Your task to perform on an android device: Open display settings Image 0: 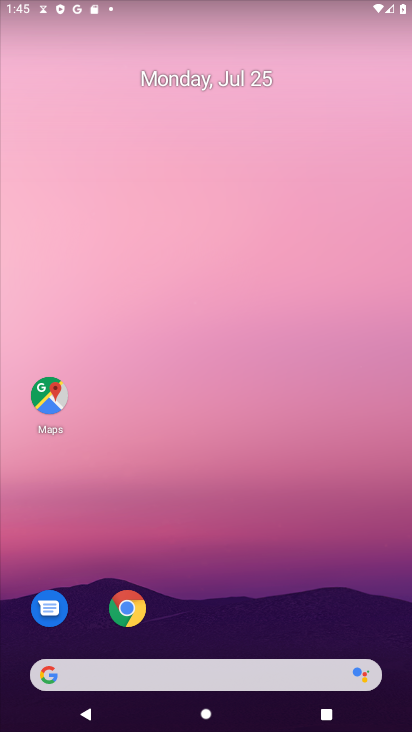
Step 0: press home button
Your task to perform on an android device: Open display settings Image 1: 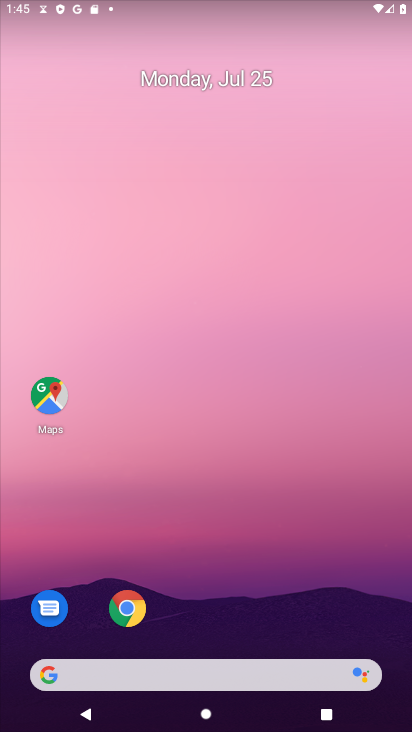
Step 1: drag from (188, 673) to (294, 44)
Your task to perform on an android device: Open display settings Image 2: 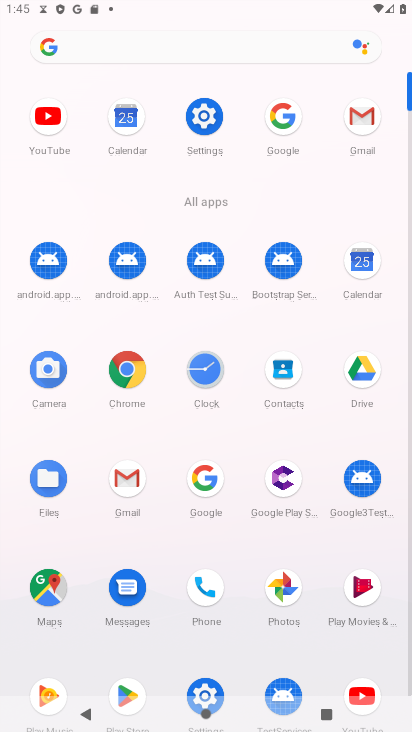
Step 2: click (204, 115)
Your task to perform on an android device: Open display settings Image 3: 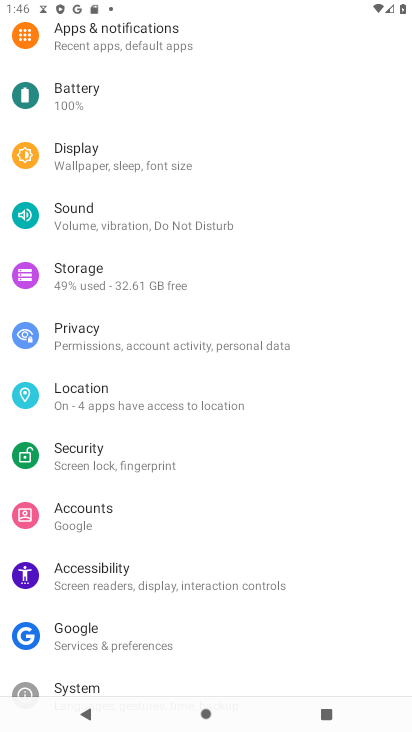
Step 3: click (95, 162)
Your task to perform on an android device: Open display settings Image 4: 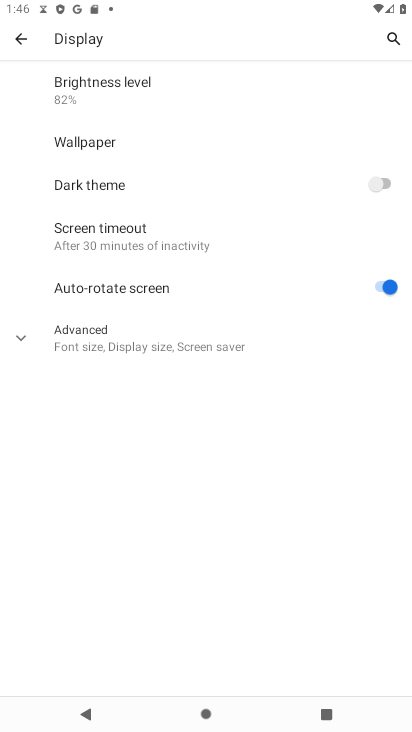
Step 4: task complete